Your task to perform on an android device: When is my next meeting? Image 0: 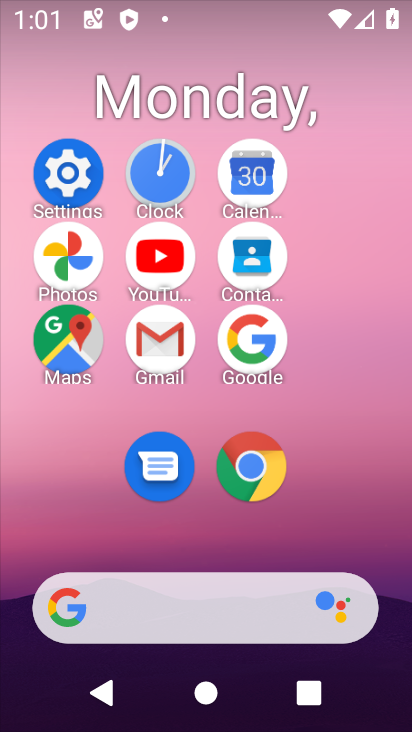
Step 0: click (261, 188)
Your task to perform on an android device: When is my next meeting? Image 1: 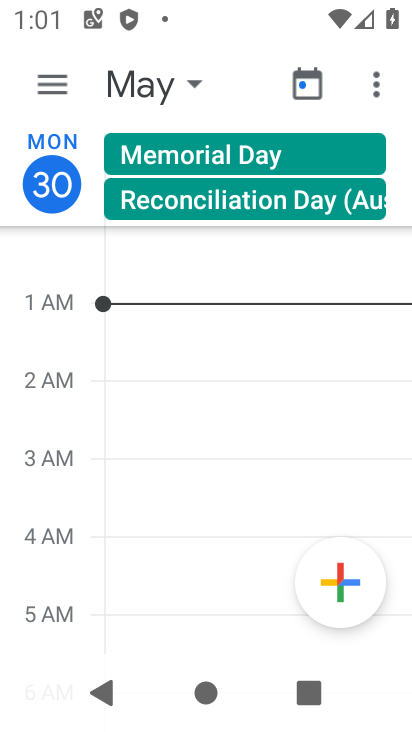
Step 1: task complete